Your task to perform on an android device: Do I have any events tomorrow? Image 0: 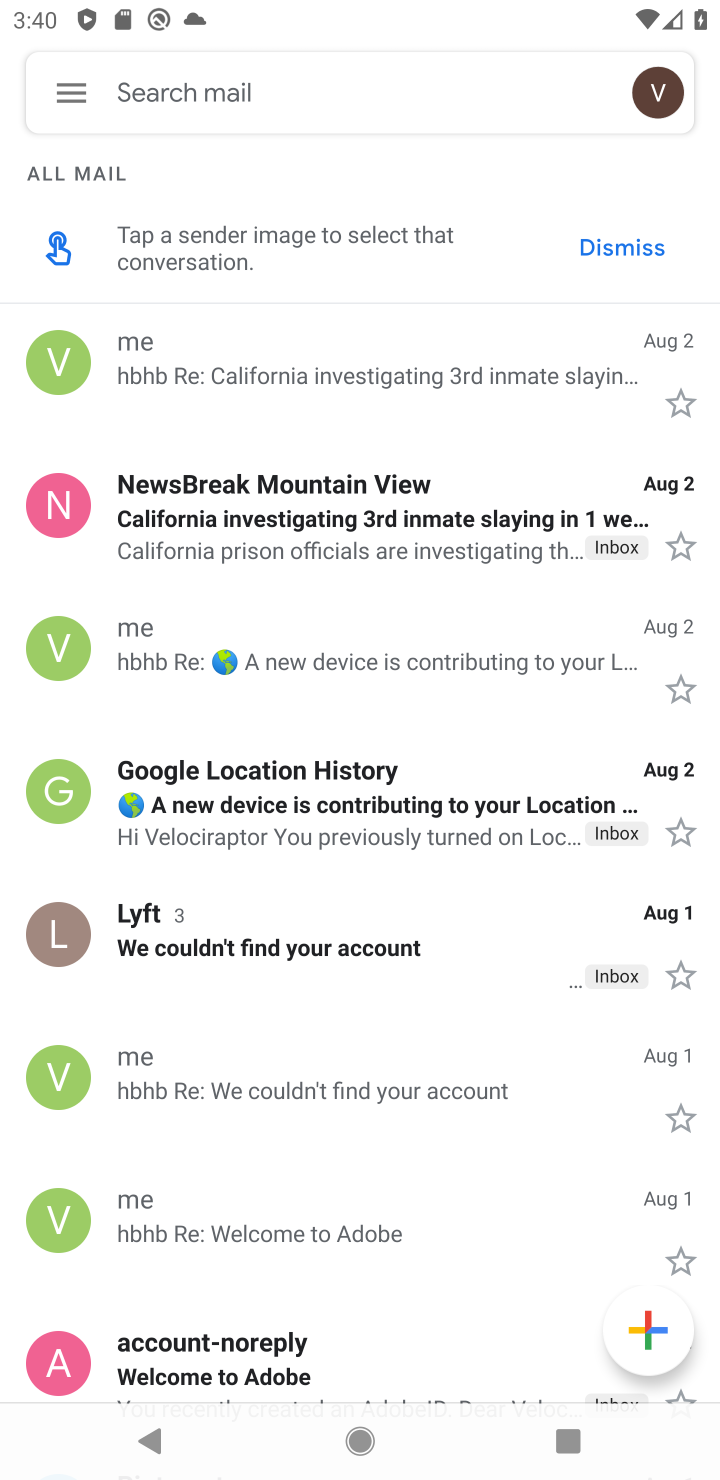
Step 0: press back button
Your task to perform on an android device: Do I have any events tomorrow? Image 1: 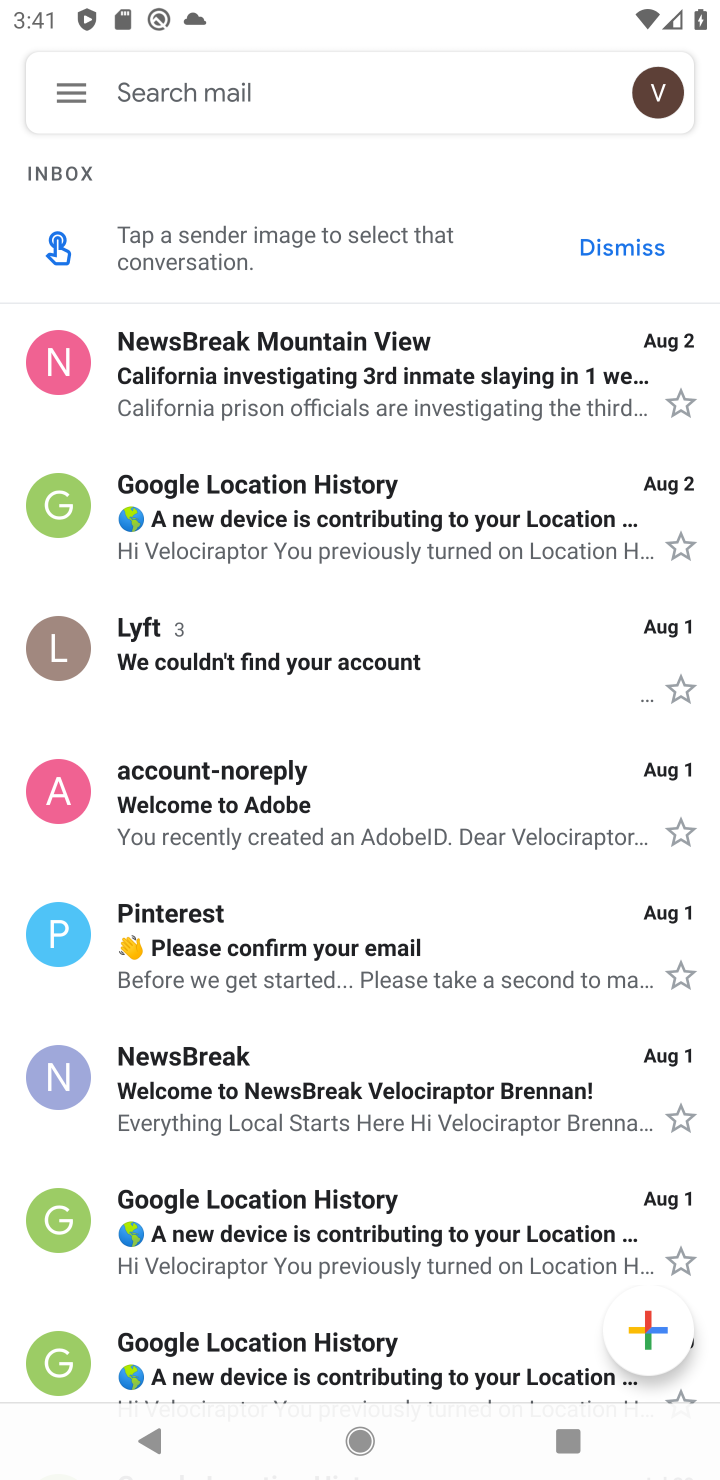
Step 1: press home button
Your task to perform on an android device: Do I have any events tomorrow? Image 2: 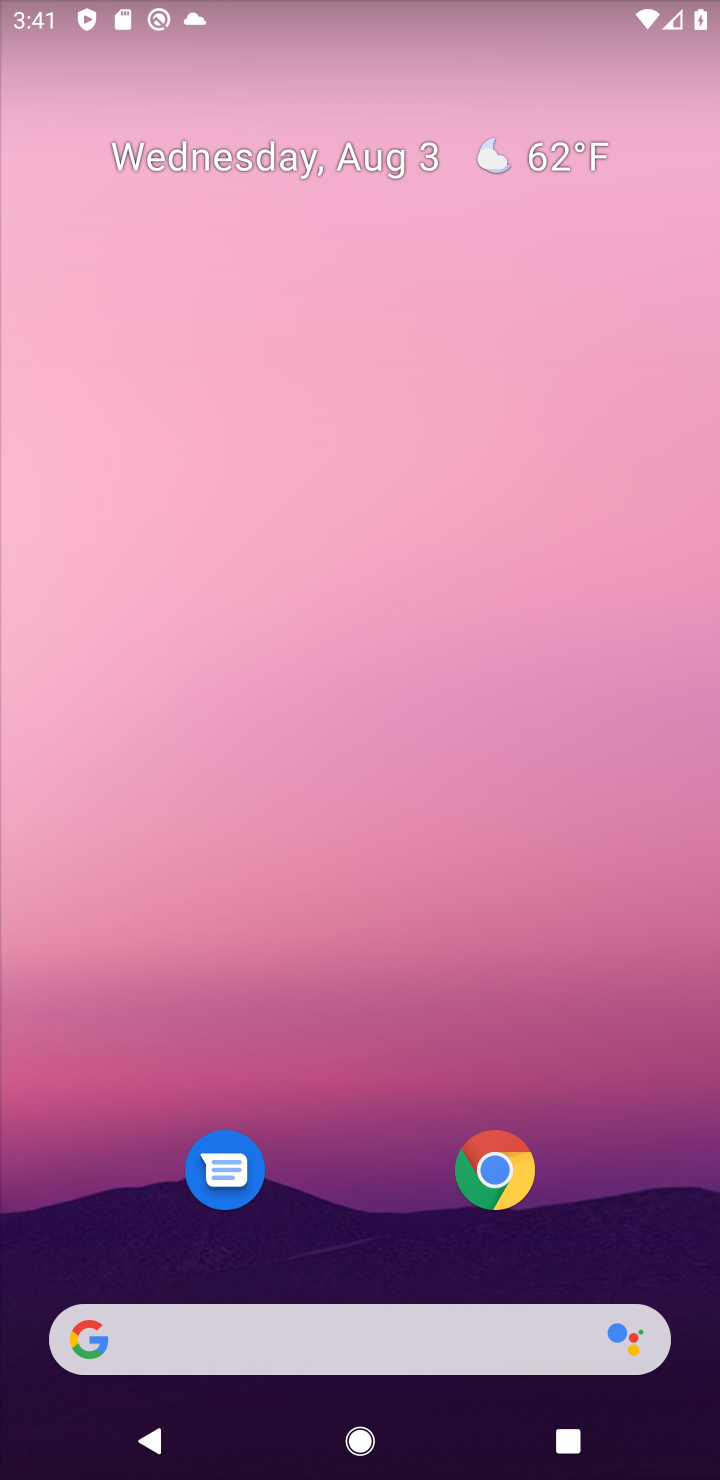
Step 2: drag from (391, 1192) to (335, 38)
Your task to perform on an android device: Do I have any events tomorrow? Image 3: 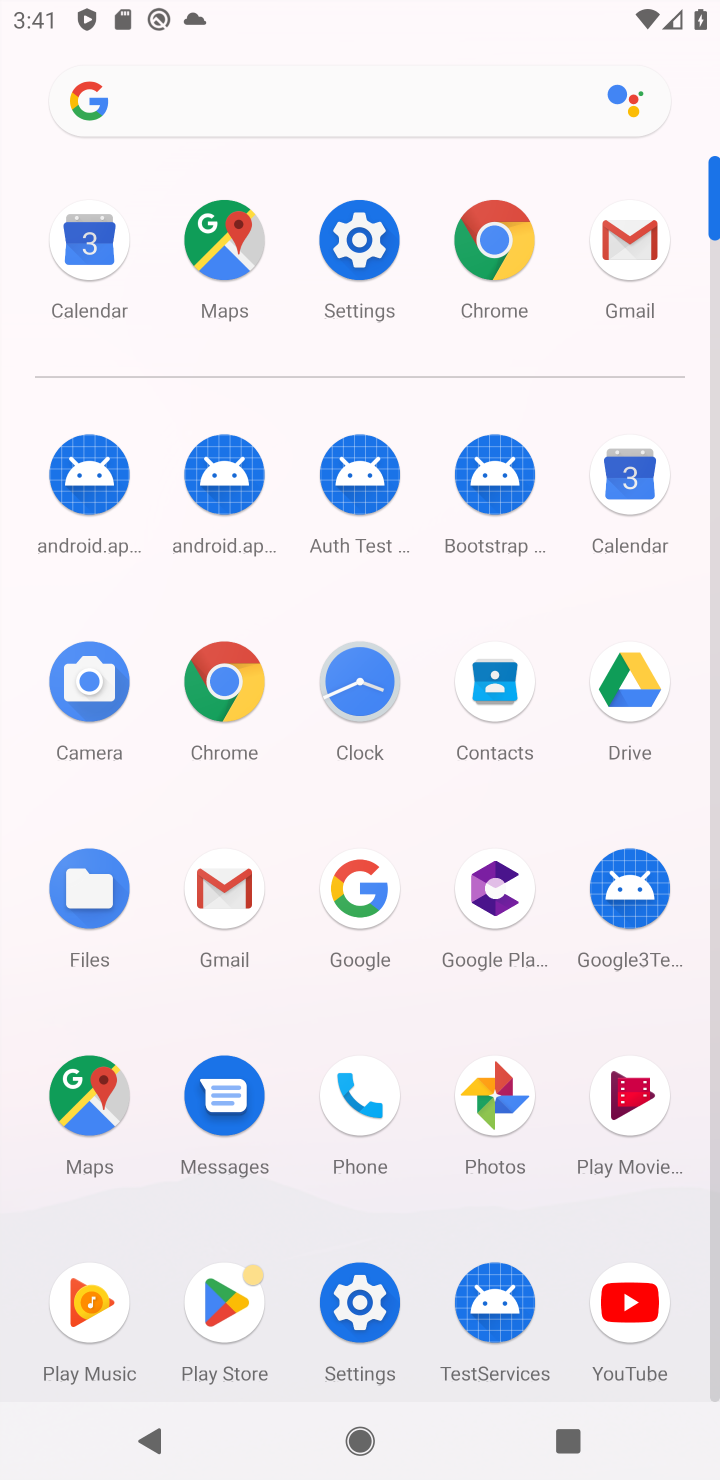
Step 3: click (614, 535)
Your task to perform on an android device: Do I have any events tomorrow? Image 4: 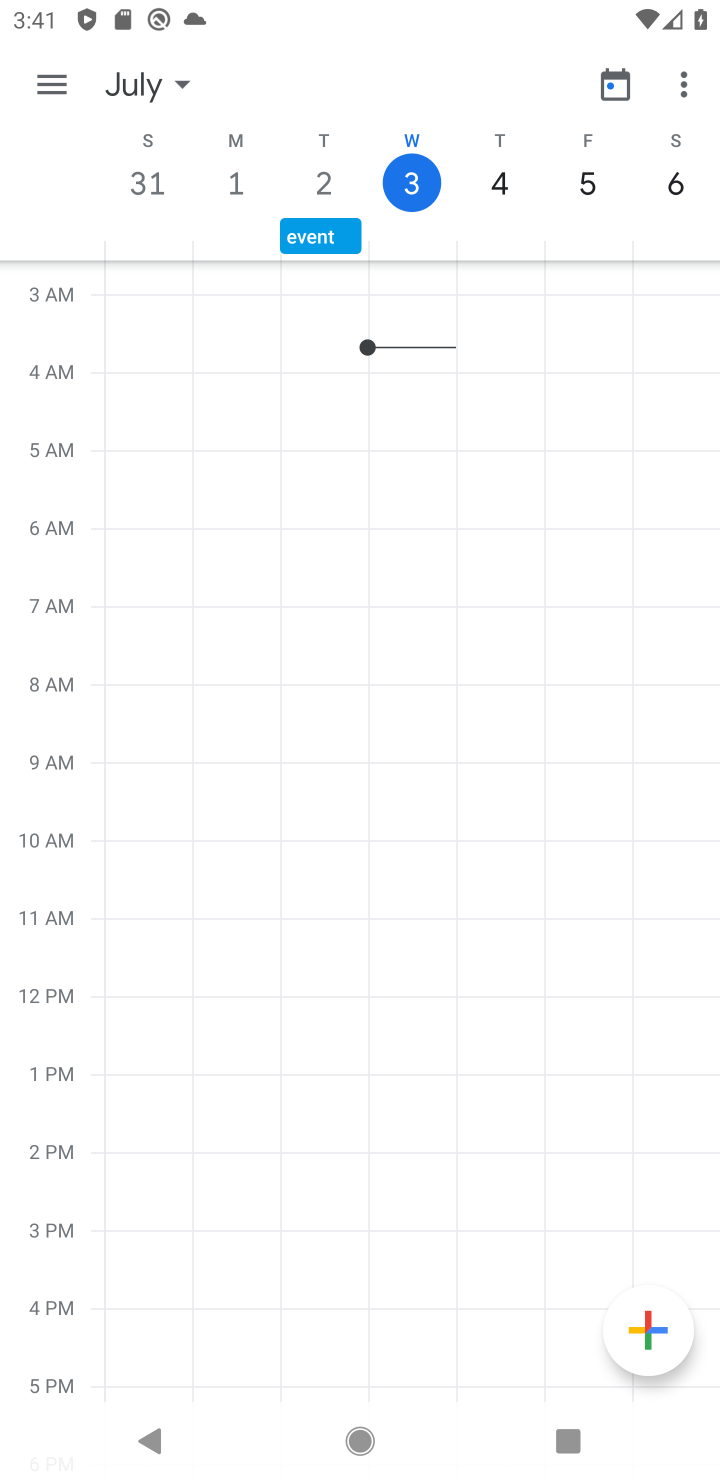
Step 4: task complete